Your task to perform on an android device: star an email in the gmail app Image 0: 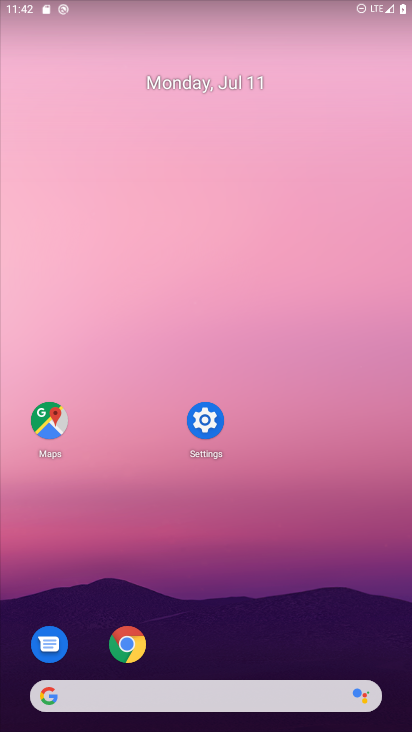
Step 0: press home button
Your task to perform on an android device: star an email in the gmail app Image 1: 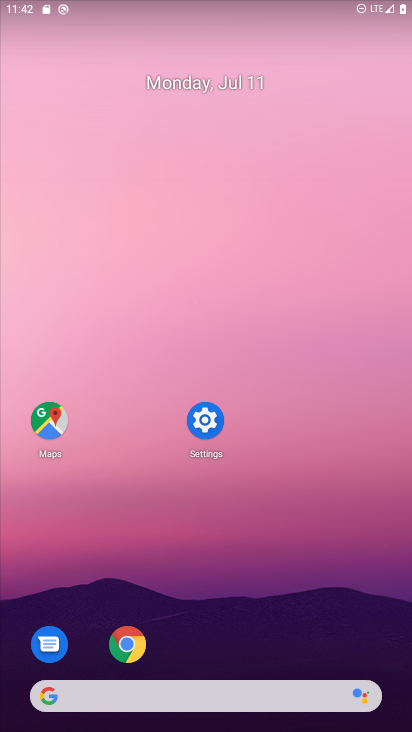
Step 1: drag from (385, 630) to (333, 138)
Your task to perform on an android device: star an email in the gmail app Image 2: 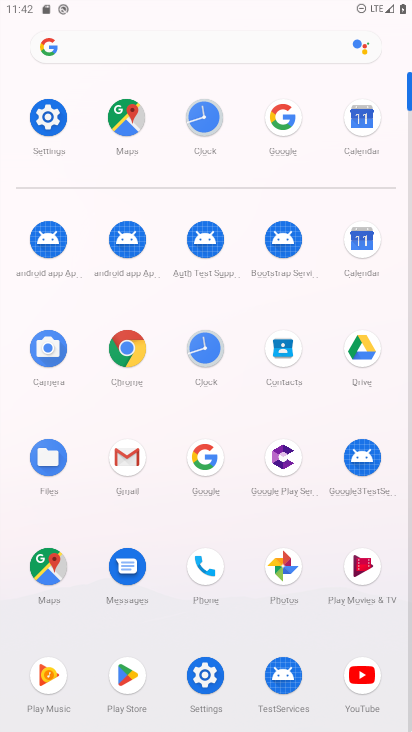
Step 2: click (126, 455)
Your task to perform on an android device: star an email in the gmail app Image 3: 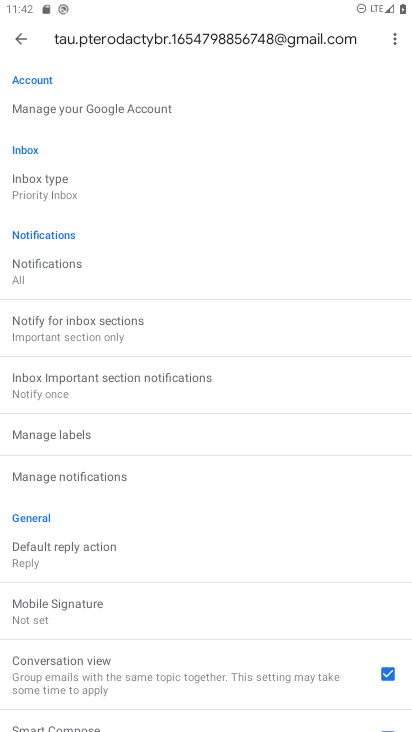
Step 3: click (20, 35)
Your task to perform on an android device: star an email in the gmail app Image 4: 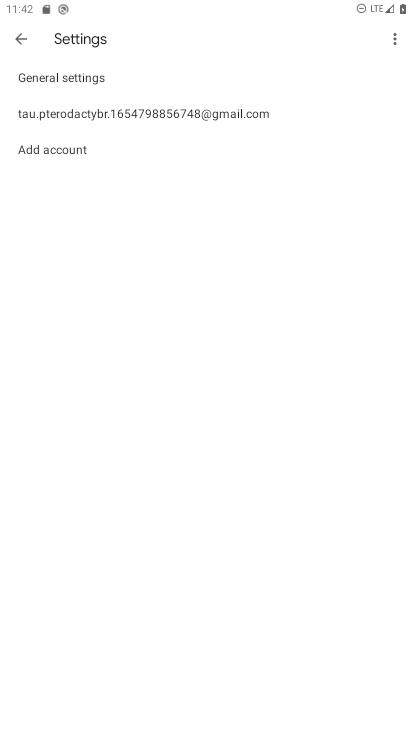
Step 4: click (19, 34)
Your task to perform on an android device: star an email in the gmail app Image 5: 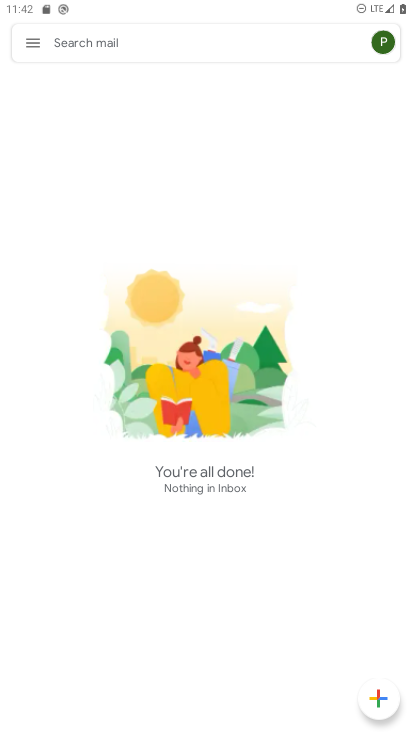
Step 5: task complete